Your task to perform on an android device: Open calendar and show me the first week of next month Image 0: 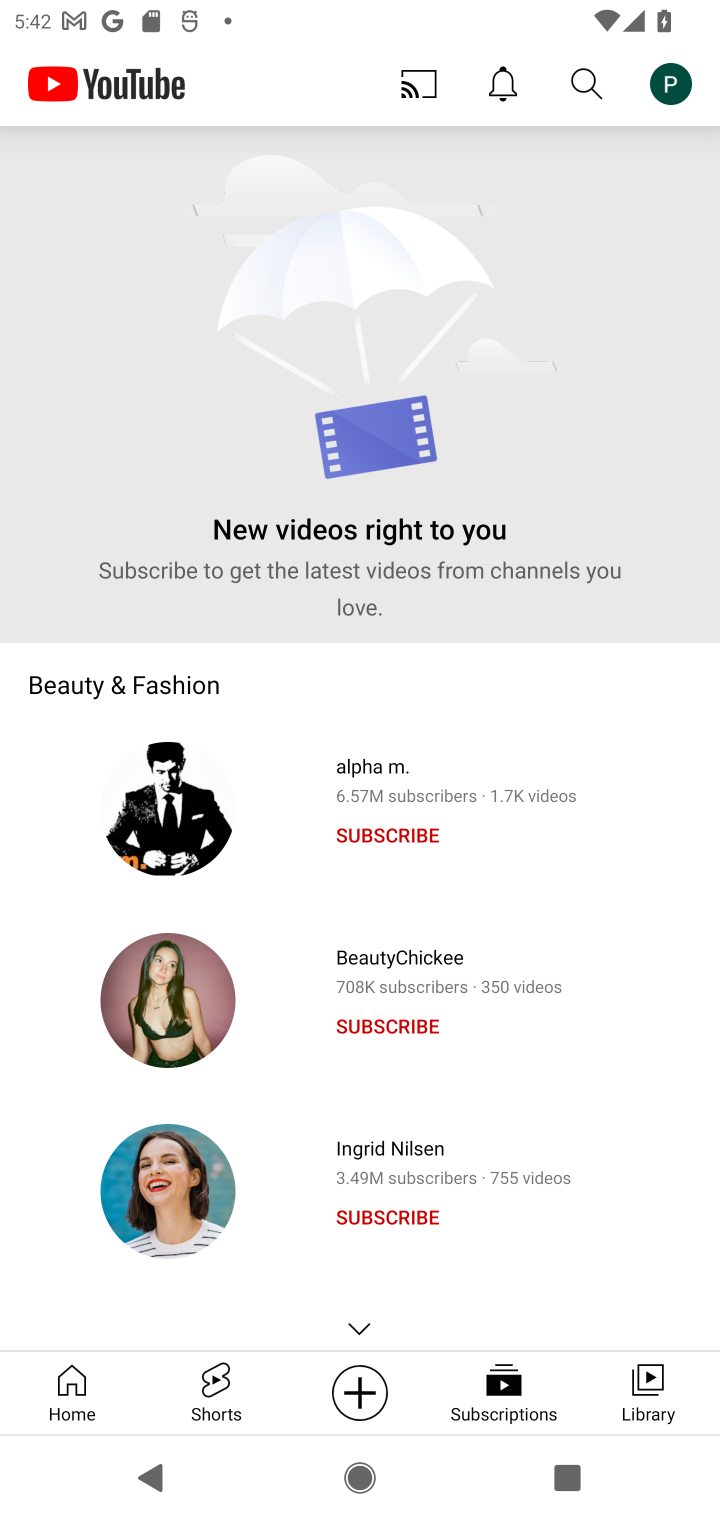
Step 0: press home button
Your task to perform on an android device: Open calendar and show me the first week of next month Image 1: 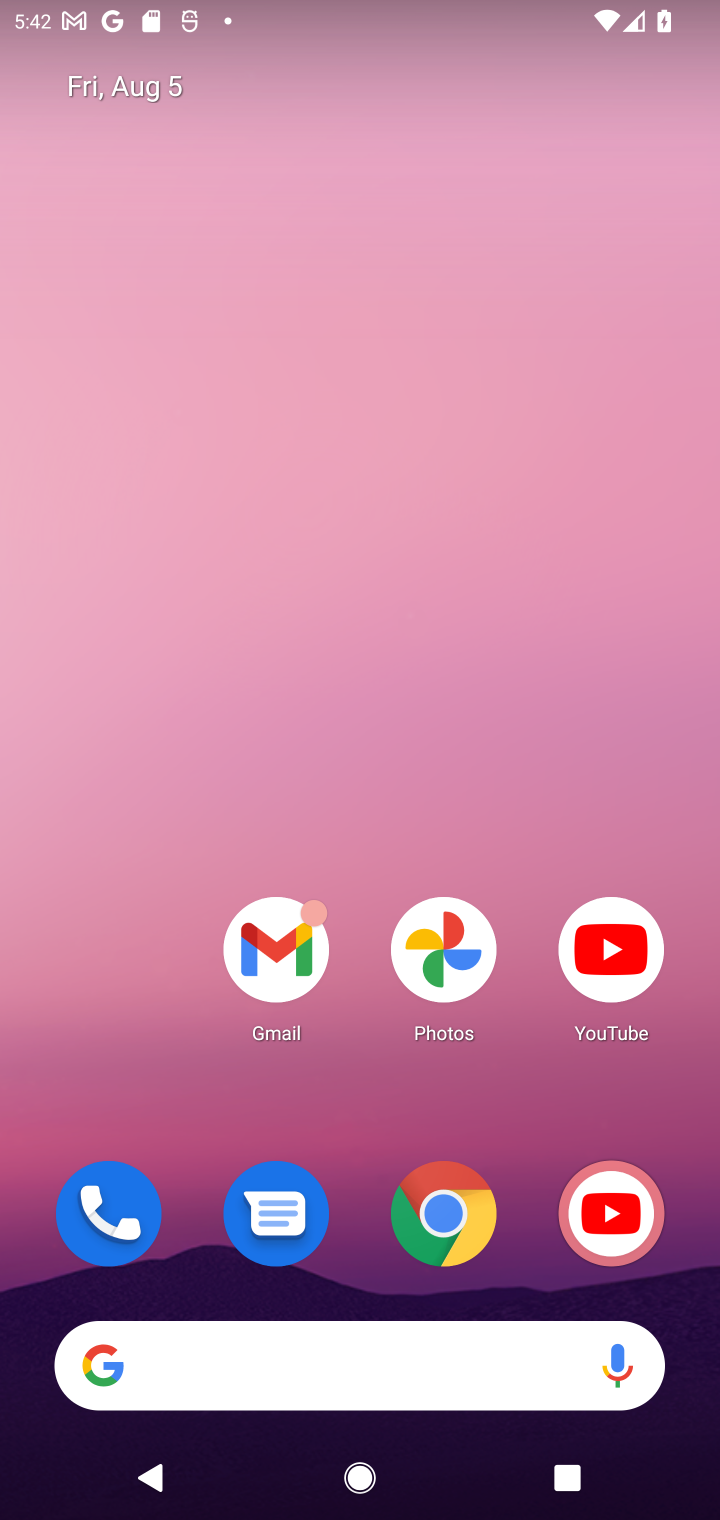
Step 1: drag from (361, 1268) to (392, 539)
Your task to perform on an android device: Open calendar and show me the first week of next month Image 2: 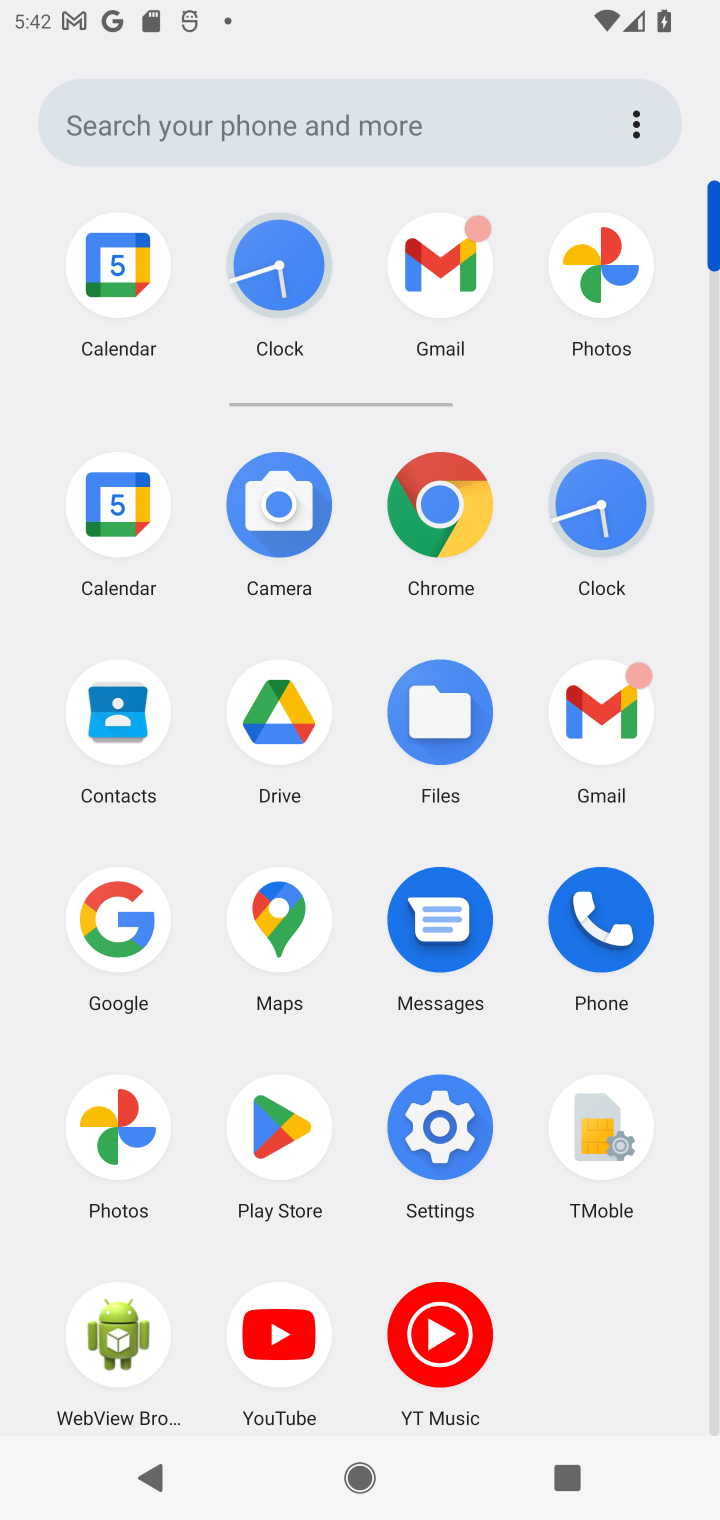
Step 2: click (153, 279)
Your task to perform on an android device: Open calendar and show me the first week of next month Image 3: 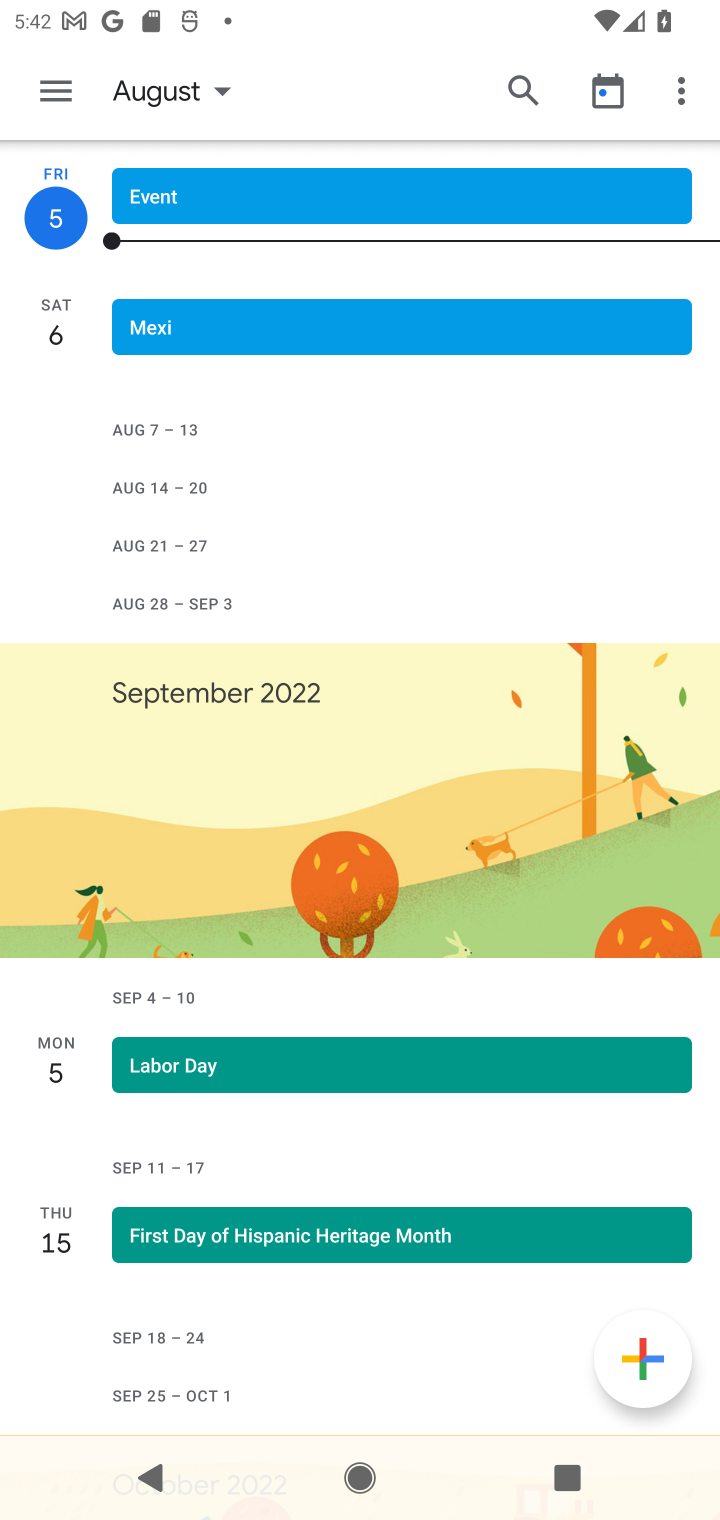
Step 3: task complete